Your task to perform on an android device: Open calendar and show me the first week of next month Image 0: 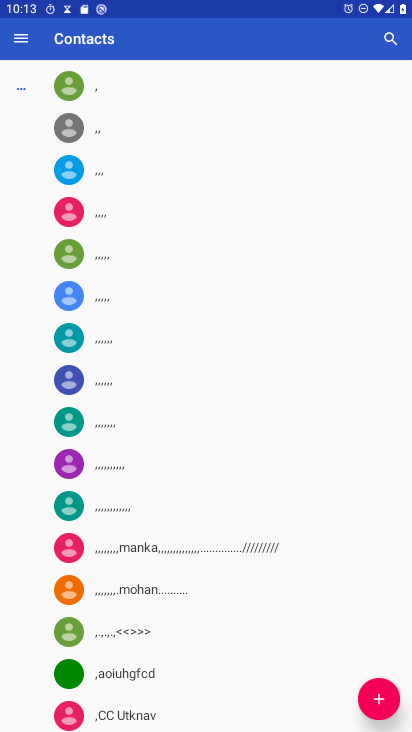
Step 0: press home button
Your task to perform on an android device: Open calendar and show me the first week of next month Image 1: 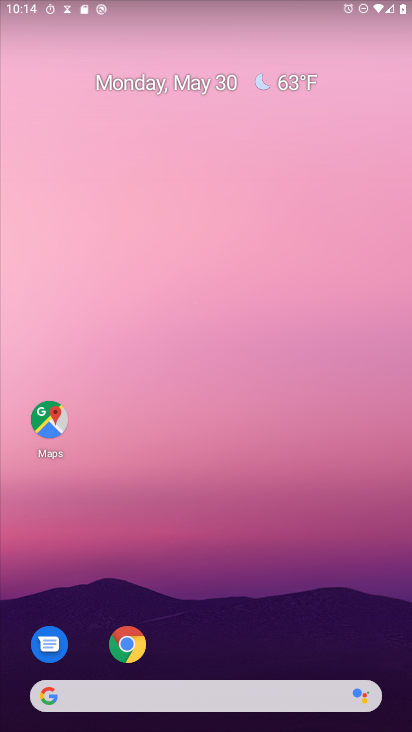
Step 1: drag from (208, 639) to (259, 39)
Your task to perform on an android device: Open calendar and show me the first week of next month Image 2: 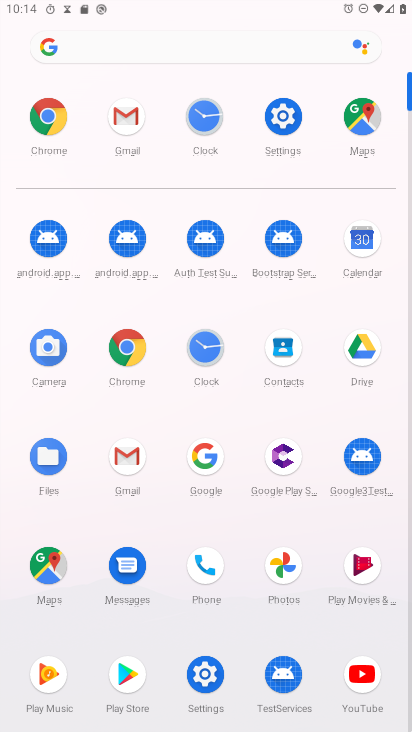
Step 2: click (358, 237)
Your task to perform on an android device: Open calendar and show me the first week of next month Image 3: 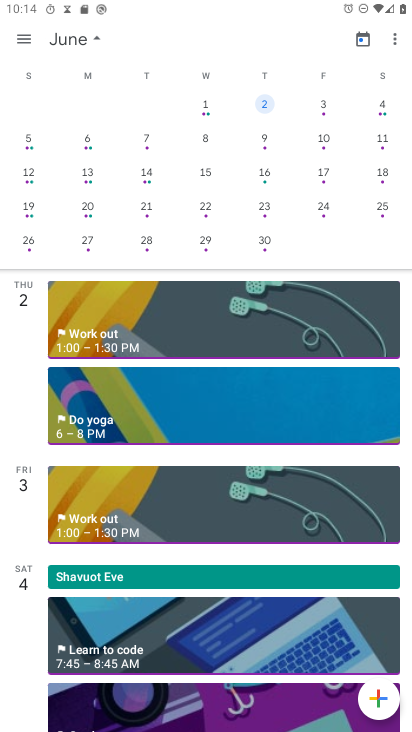
Step 3: task complete